Your task to perform on an android device: Go to Yahoo.com Image 0: 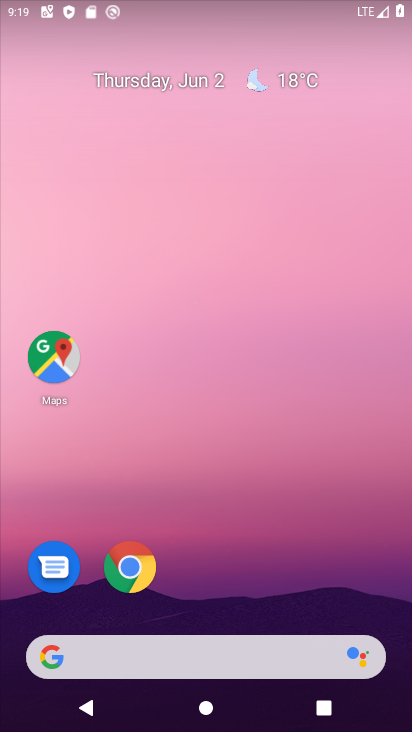
Step 0: press home button
Your task to perform on an android device: Go to Yahoo.com Image 1: 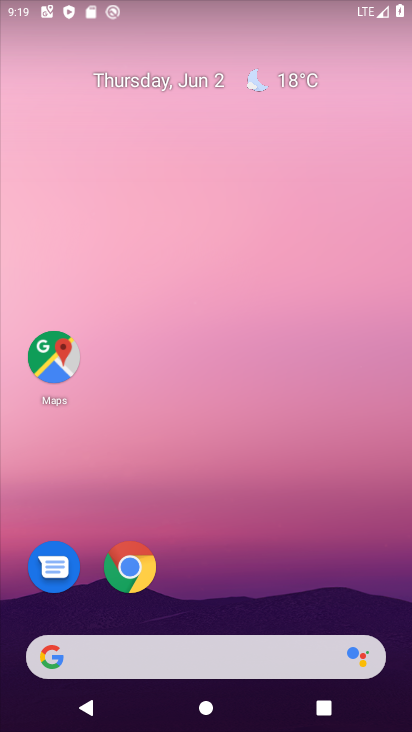
Step 1: click (132, 566)
Your task to perform on an android device: Go to Yahoo.com Image 2: 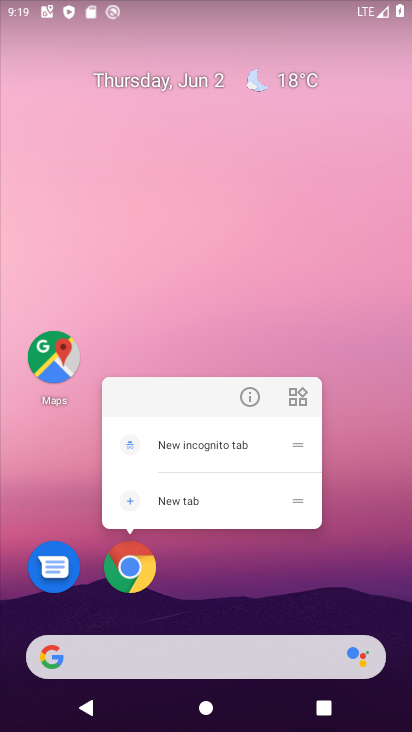
Step 2: click (133, 559)
Your task to perform on an android device: Go to Yahoo.com Image 3: 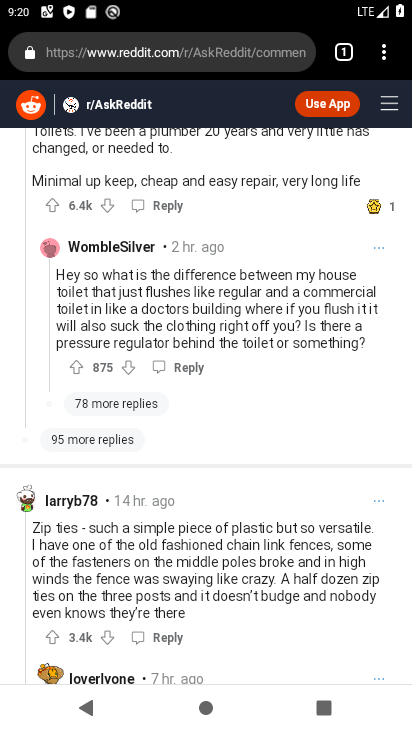
Step 3: click (343, 53)
Your task to perform on an android device: Go to Yahoo.com Image 4: 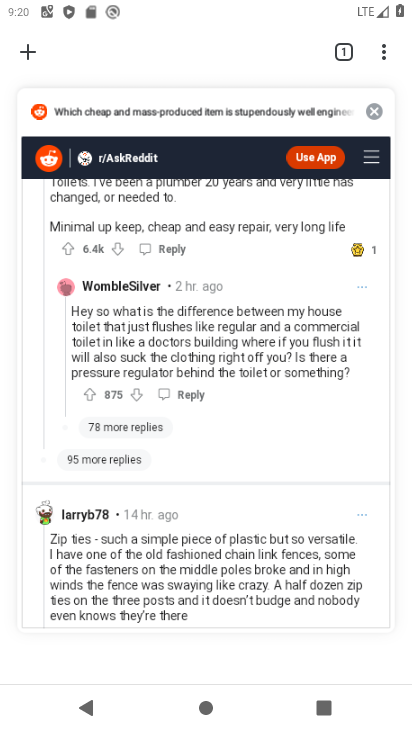
Step 4: click (376, 105)
Your task to perform on an android device: Go to Yahoo.com Image 5: 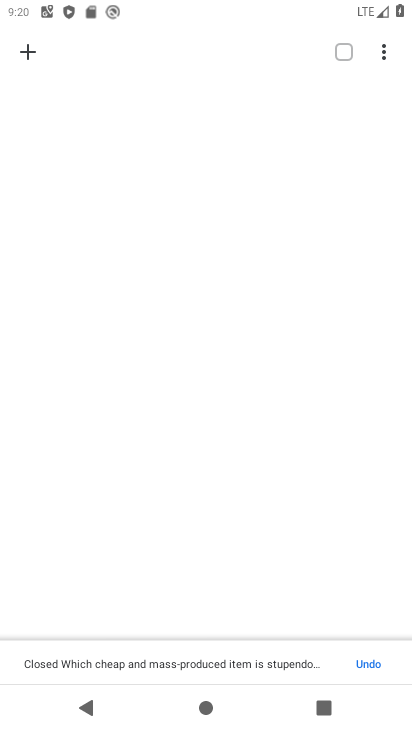
Step 5: click (35, 54)
Your task to perform on an android device: Go to Yahoo.com Image 6: 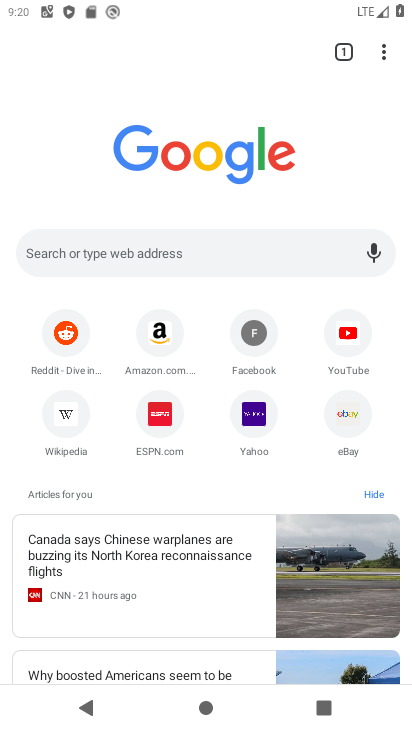
Step 6: click (252, 411)
Your task to perform on an android device: Go to Yahoo.com Image 7: 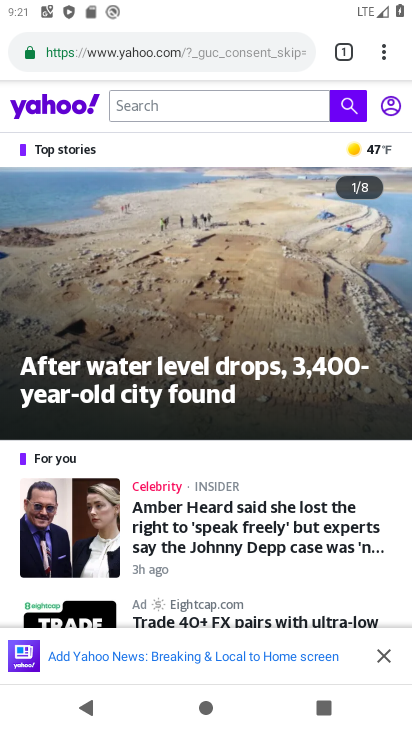
Step 7: task complete